Your task to perform on an android device: Open Google Image 0: 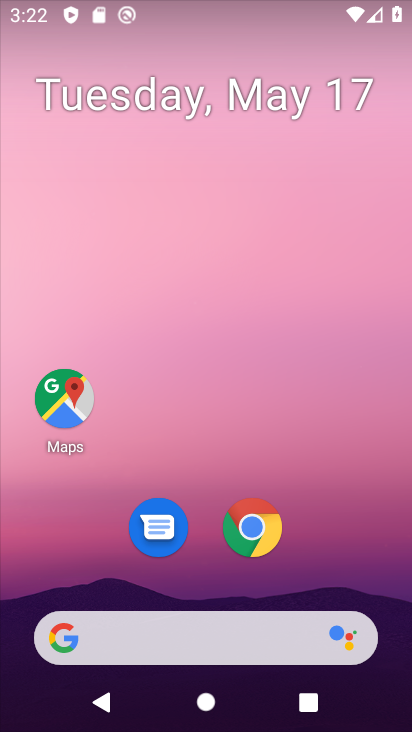
Step 0: drag from (89, 603) to (193, 223)
Your task to perform on an android device: Open Google Image 1: 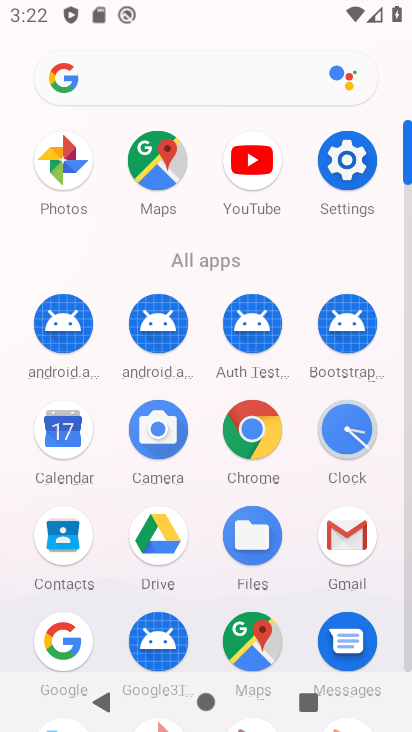
Step 1: click (64, 644)
Your task to perform on an android device: Open Google Image 2: 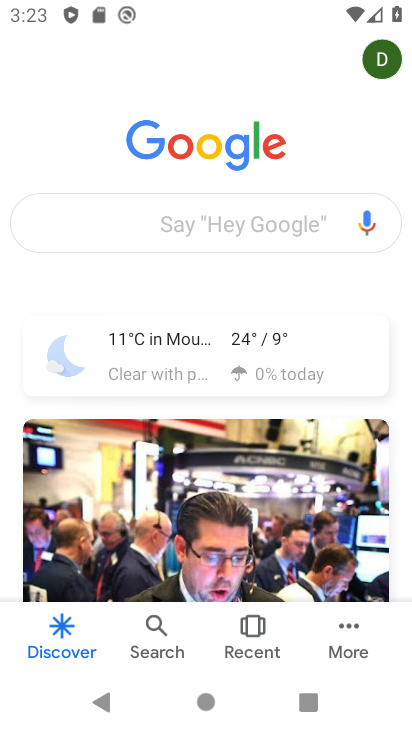
Step 2: task complete